Your task to perform on an android device: check storage Image 0: 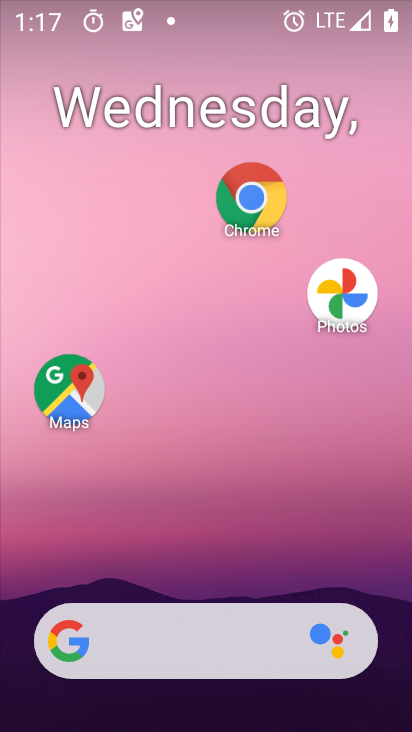
Step 0: drag from (237, 598) to (294, 157)
Your task to perform on an android device: check storage Image 1: 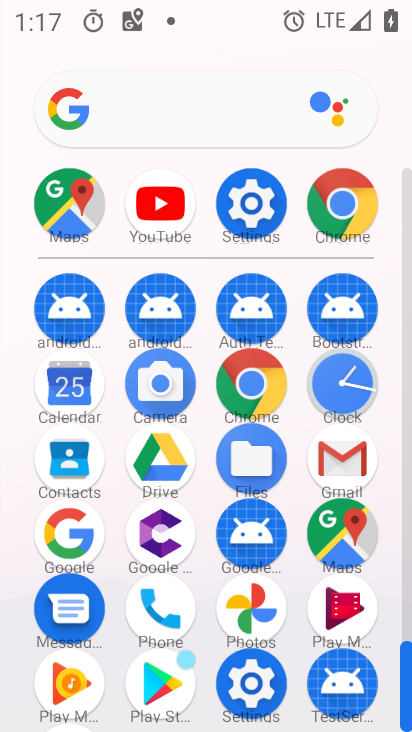
Step 1: click (253, 676)
Your task to perform on an android device: check storage Image 2: 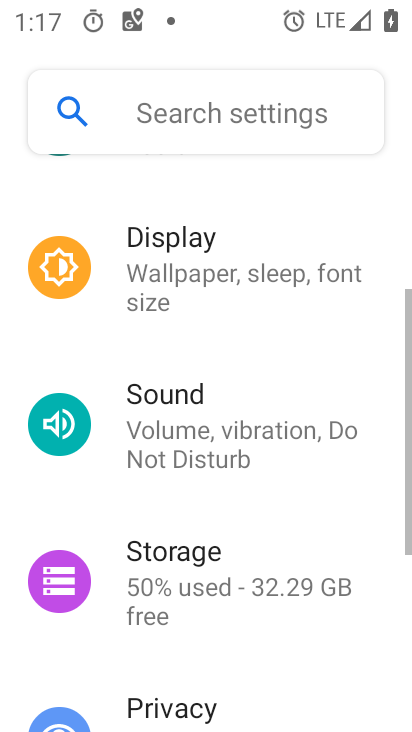
Step 2: drag from (225, 585) to (215, 360)
Your task to perform on an android device: check storage Image 3: 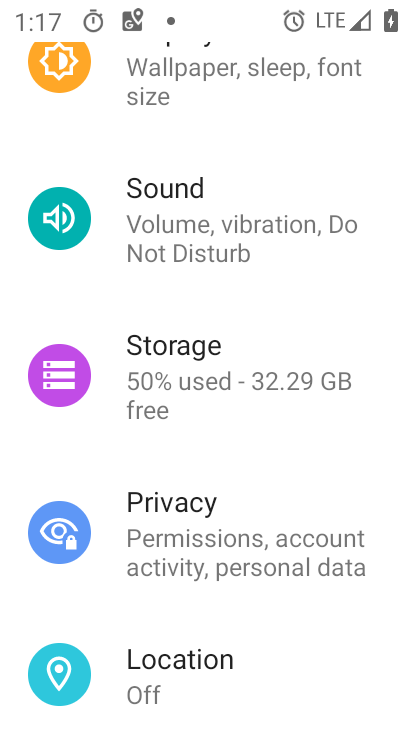
Step 3: click (215, 374)
Your task to perform on an android device: check storage Image 4: 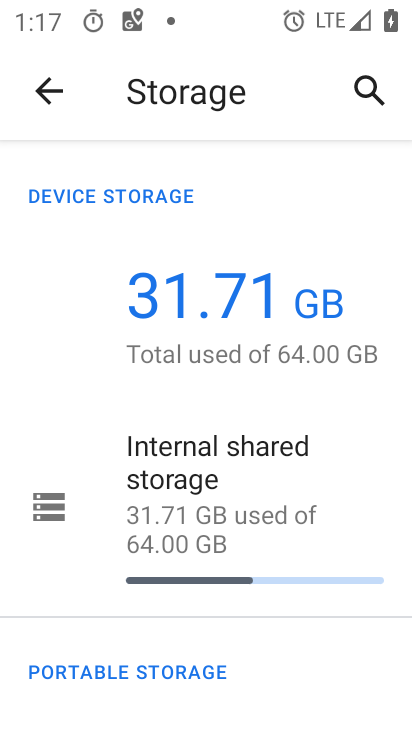
Step 4: click (231, 499)
Your task to perform on an android device: check storage Image 5: 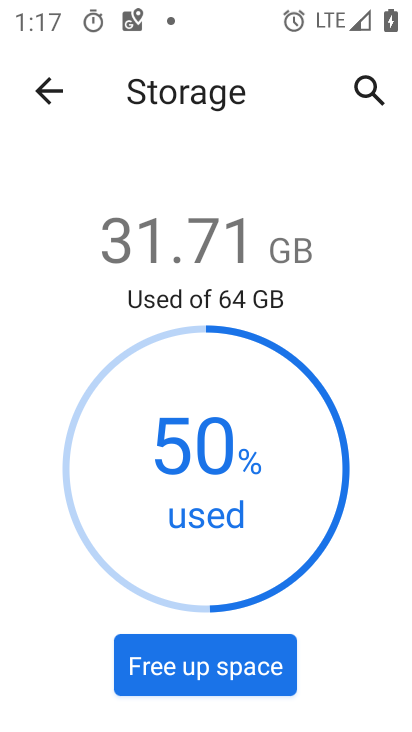
Step 5: task complete